Your task to perform on an android device: toggle wifi Image 0: 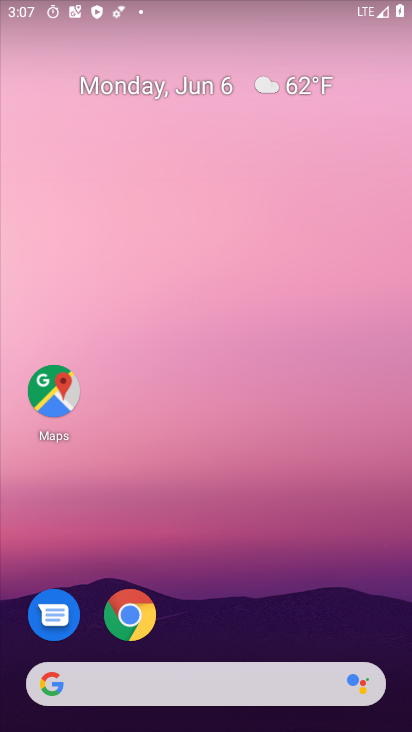
Step 0: drag from (287, 708) to (323, 230)
Your task to perform on an android device: toggle wifi Image 1: 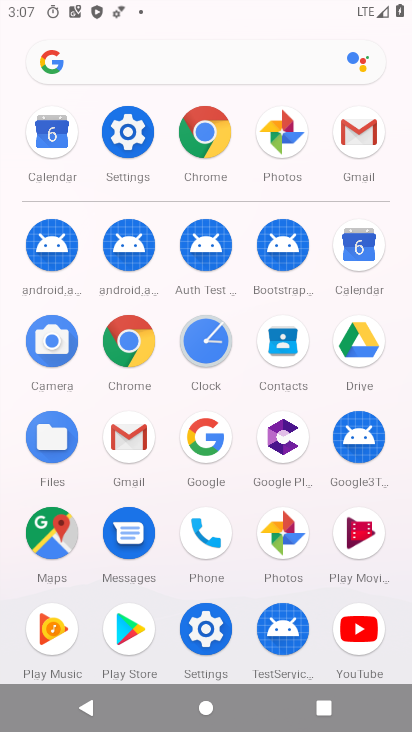
Step 1: click (137, 129)
Your task to perform on an android device: toggle wifi Image 2: 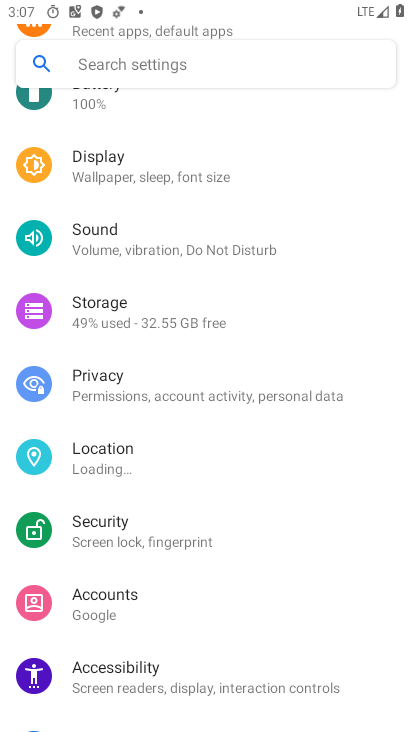
Step 2: drag from (145, 143) to (55, 706)
Your task to perform on an android device: toggle wifi Image 3: 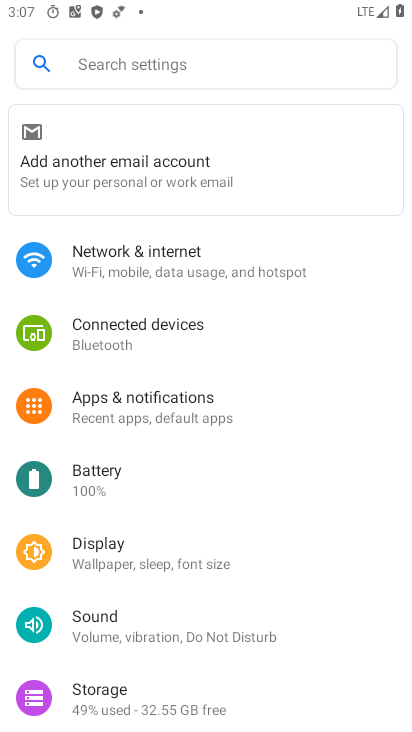
Step 3: click (162, 279)
Your task to perform on an android device: toggle wifi Image 4: 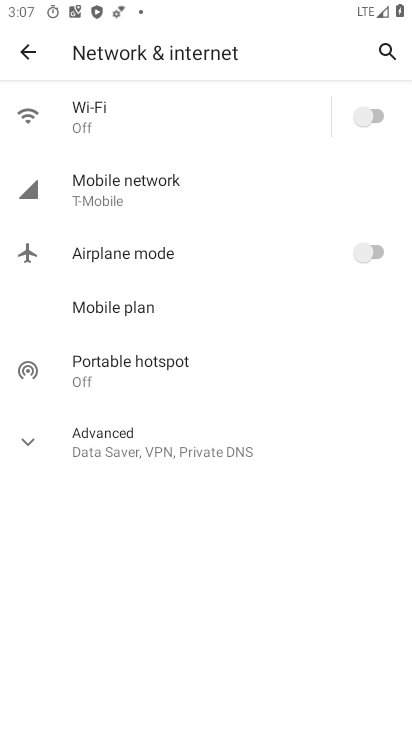
Step 4: click (171, 112)
Your task to perform on an android device: toggle wifi Image 5: 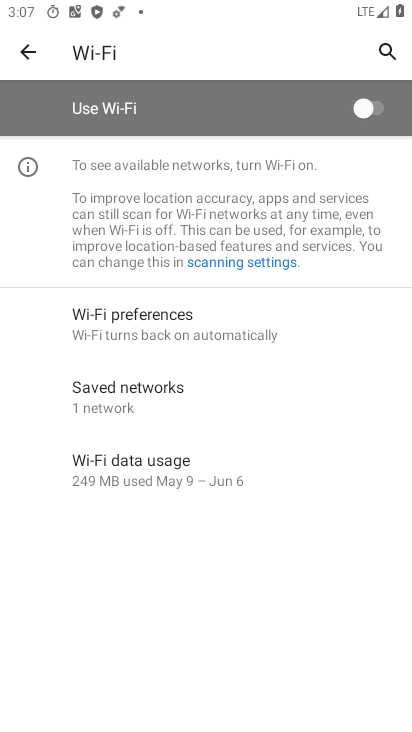
Step 5: click (372, 113)
Your task to perform on an android device: toggle wifi Image 6: 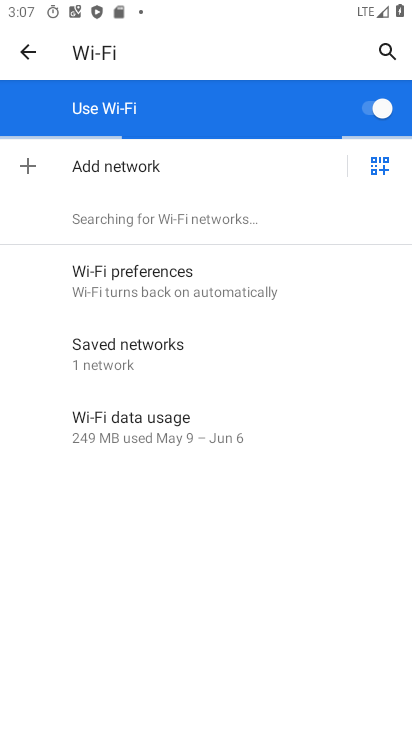
Step 6: task complete